Your task to perform on an android device: create a new album in the google photos Image 0: 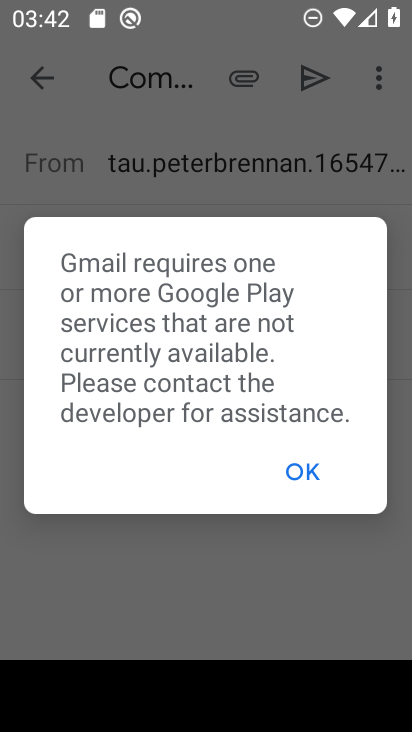
Step 0: press back button
Your task to perform on an android device: create a new album in the google photos Image 1: 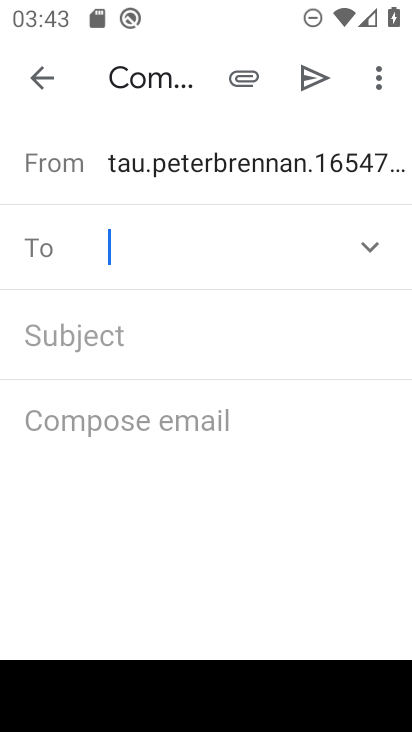
Step 1: press back button
Your task to perform on an android device: create a new album in the google photos Image 2: 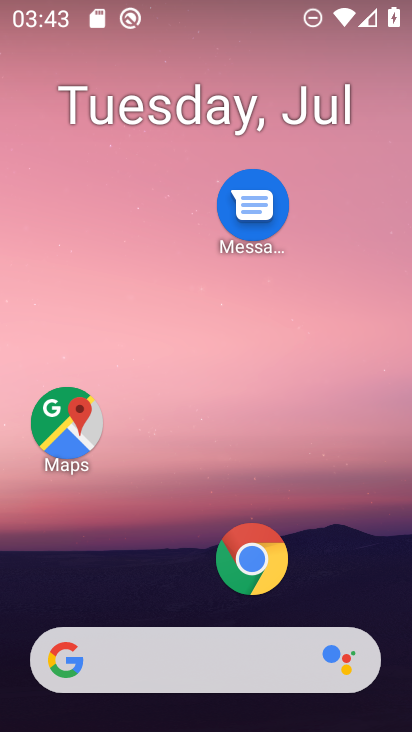
Step 2: drag from (199, 591) to (279, 81)
Your task to perform on an android device: create a new album in the google photos Image 3: 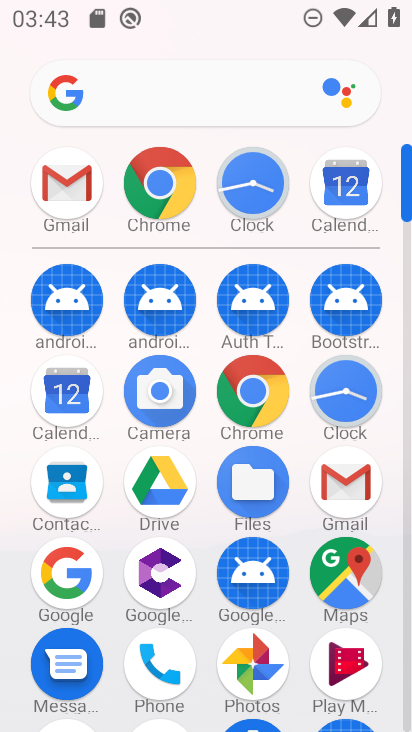
Step 3: click (255, 671)
Your task to perform on an android device: create a new album in the google photos Image 4: 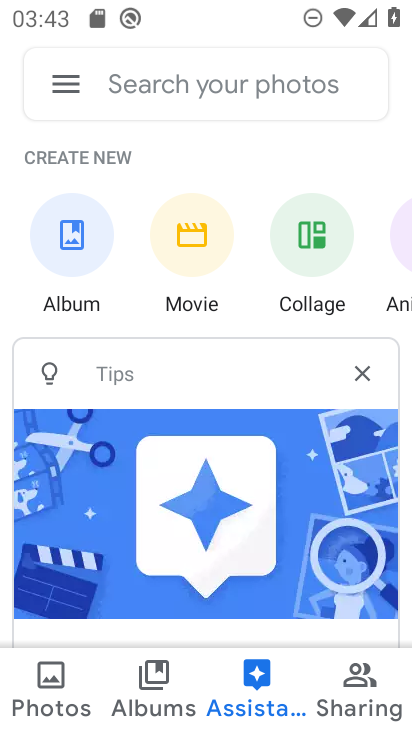
Step 4: click (153, 688)
Your task to perform on an android device: create a new album in the google photos Image 5: 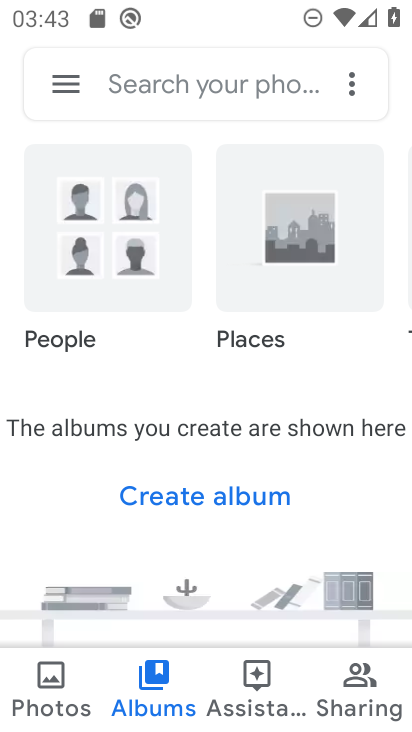
Step 5: click (222, 489)
Your task to perform on an android device: create a new album in the google photos Image 6: 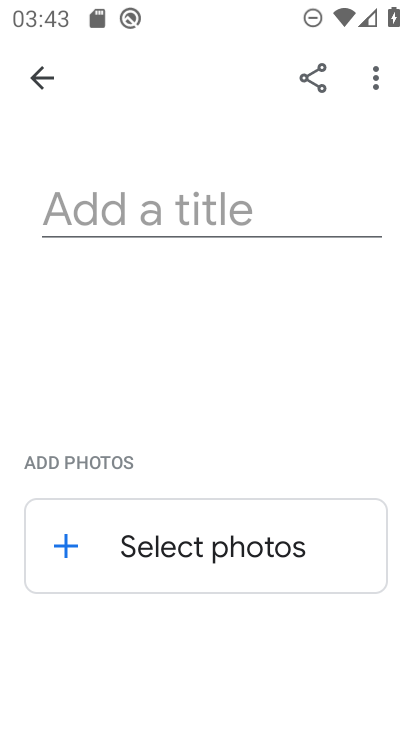
Step 6: click (105, 204)
Your task to perform on an android device: create a new album in the google photos Image 7: 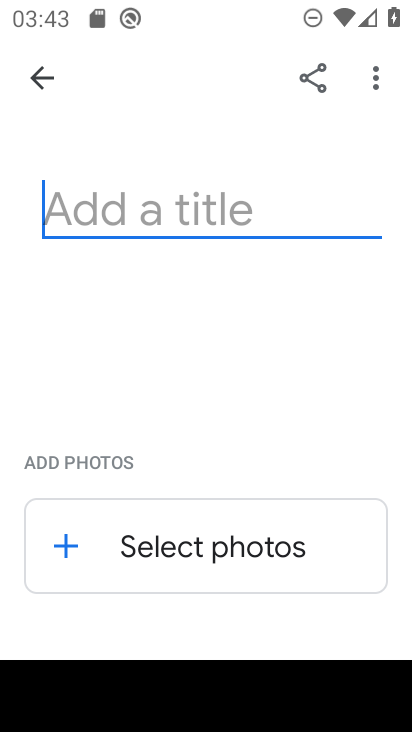
Step 7: type "b b n"
Your task to perform on an android device: create a new album in the google photos Image 8: 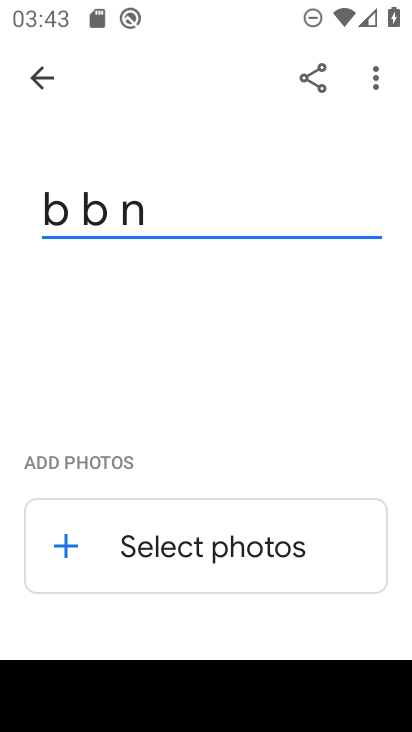
Step 8: click (203, 519)
Your task to perform on an android device: create a new album in the google photos Image 9: 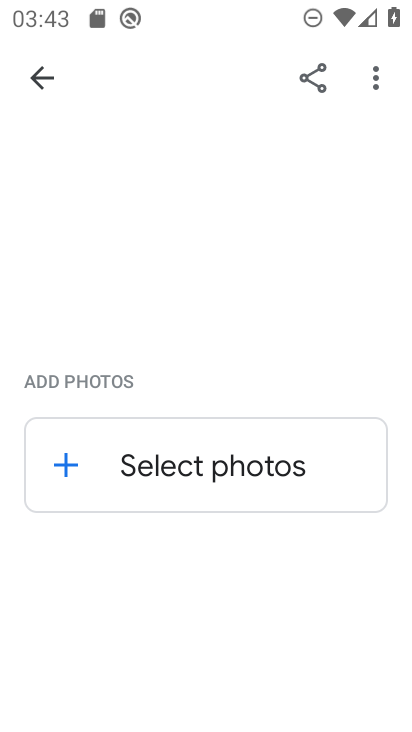
Step 9: click (192, 457)
Your task to perform on an android device: create a new album in the google photos Image 10: 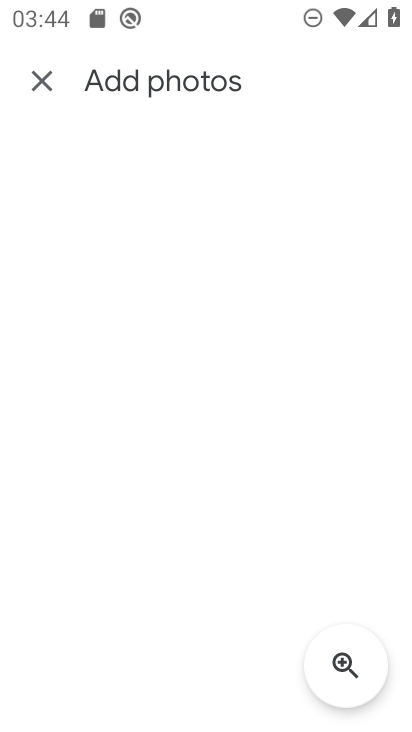
Step 10: task complete